Your task to perform on an android device: empty trash in google photos Image 0: 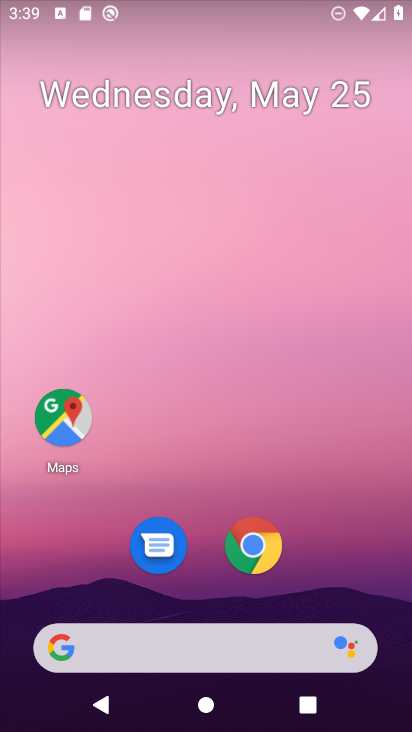
Step 0: drag from (365, 586) to (329, 107)
Your task to perform on an android device: empty trash in google photos Image 1: 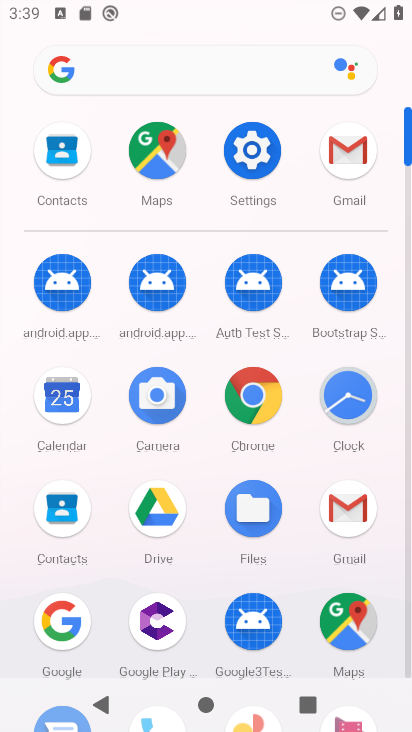
Step 1: click (262, 148)
Your task to perform on an android device: empty trash in google photos Image 2: 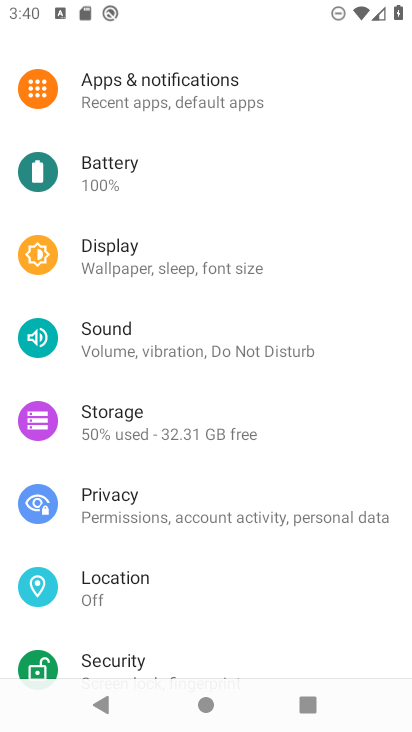
Step 2: drag from (241, 116) to (214, 434)
Your task to perform on an android device: empty trash in google photos Image 3: 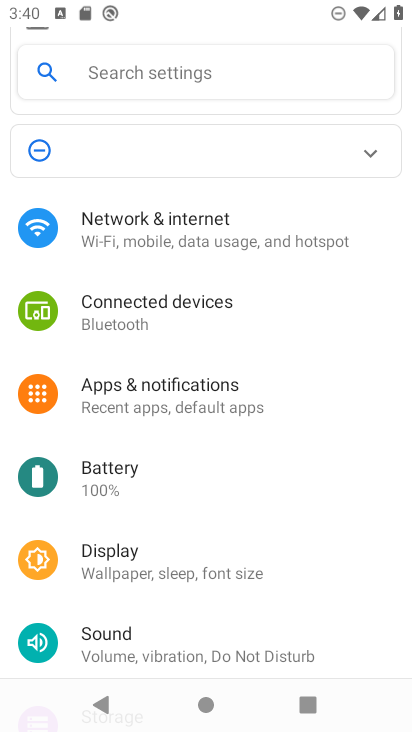
Step 3: click (191, 232)
Your task to perform on an android device: empty trash in google photos Image 4: 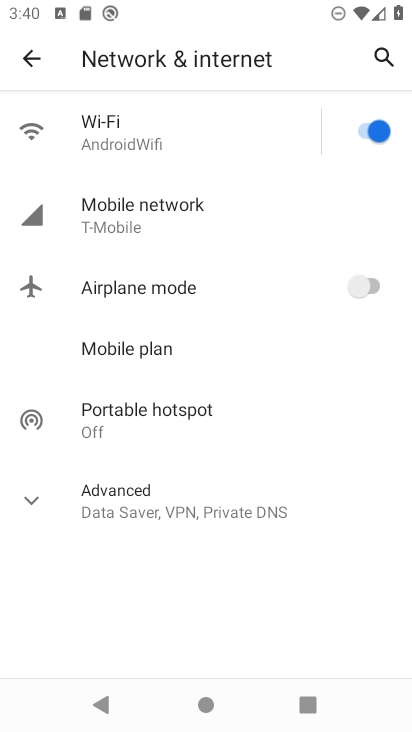
Step 4: click (197, 129)
Your task to perform on an android device: empty trash in google photos Image 5: 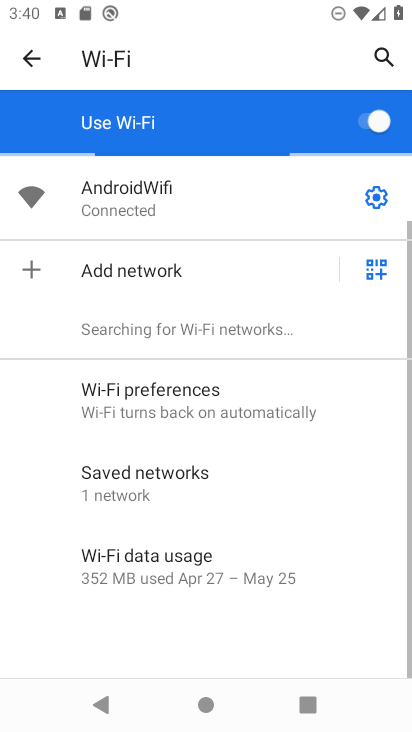
Step 5: task complete